Your task to perform on an android device: What's the weather? Image 0: 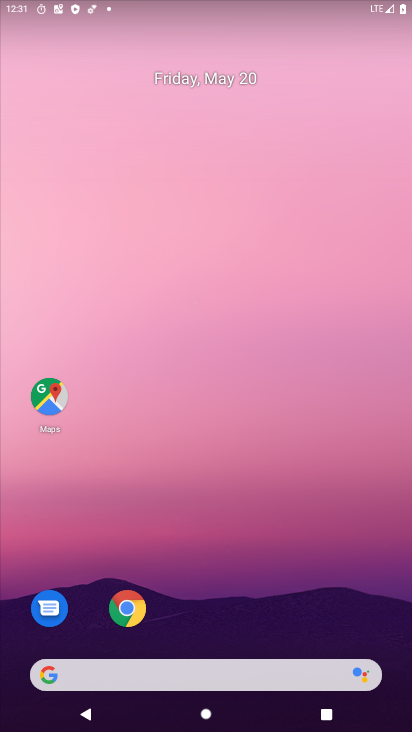
Step 0: drag from (364, 621) to (318, 142)
Your task to perform on an android device: What's the weather? Image 1: 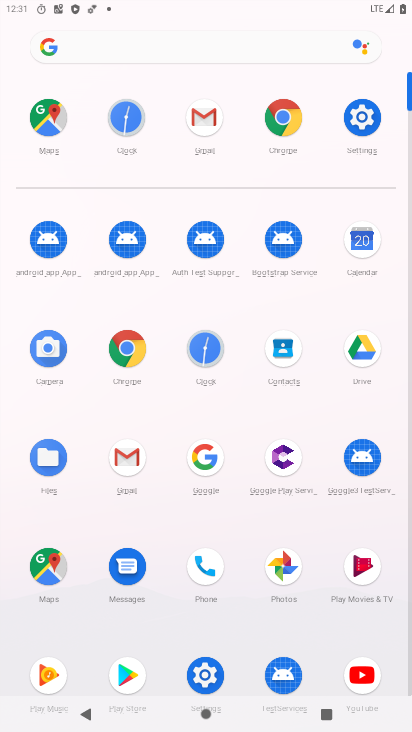
Step 1: click (125, 353)
Your task to perform on an android device: What's the weather? Image 2: 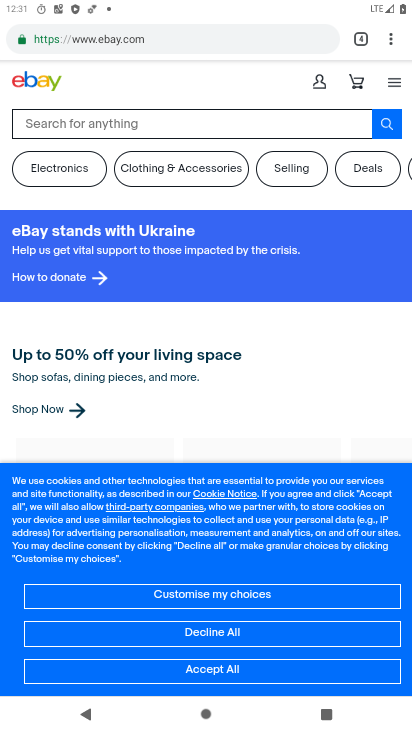
Step 2: click (206, 47)
Your task to perform on an android device: What's the weather? Image 3: 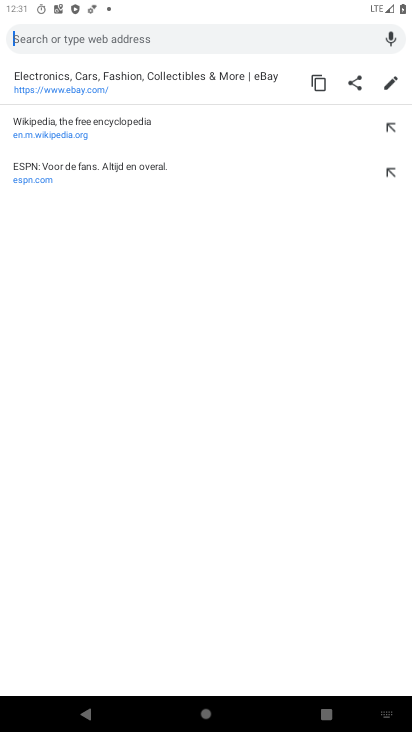
Step 3: type "what' the weather"
Your task to perform on an android device: What's the weather? Image 4: 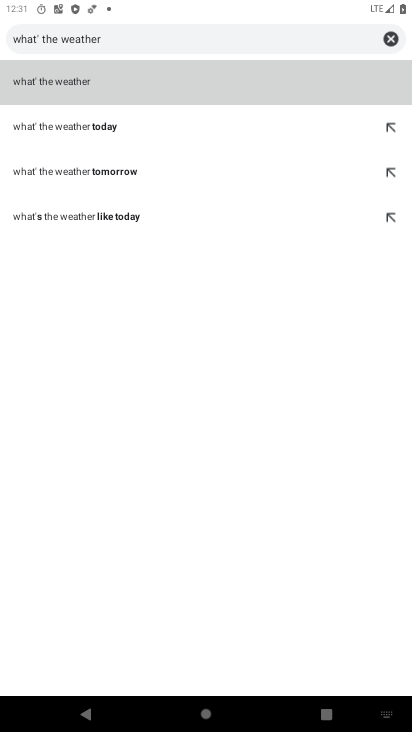
Step 4: click (43, 86)
Your task to perform on an android device: What's the weather? Image 5: 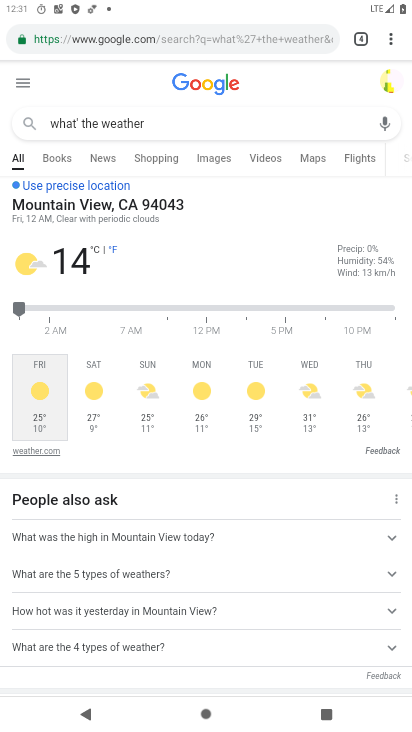
Step 5: task complete